Your task to perform on an android device: Open the web browser Image 0: 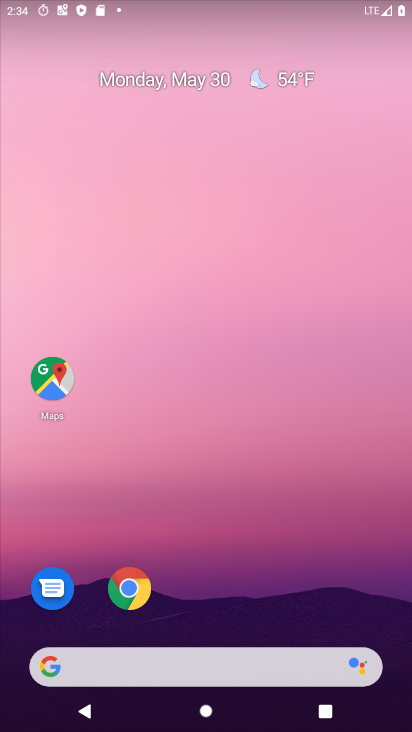
Step 0: drag from (234, 598) to (226, 91)
Your task to perform on an android device: Open the web browser Image 1: 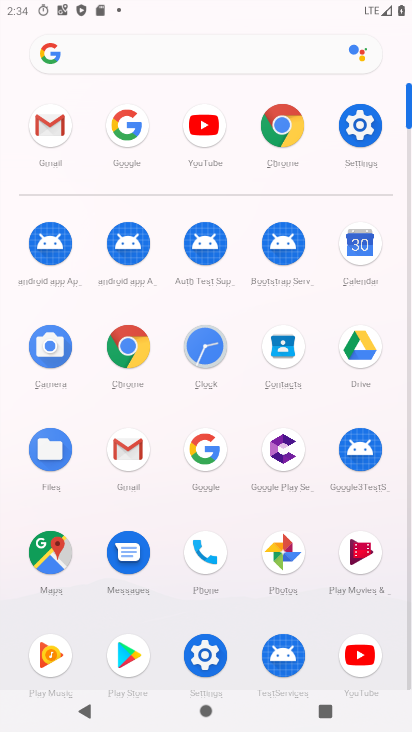
Step 1: click (127, 118)
Your task to perform on an android device: Open the web browser Image 2: 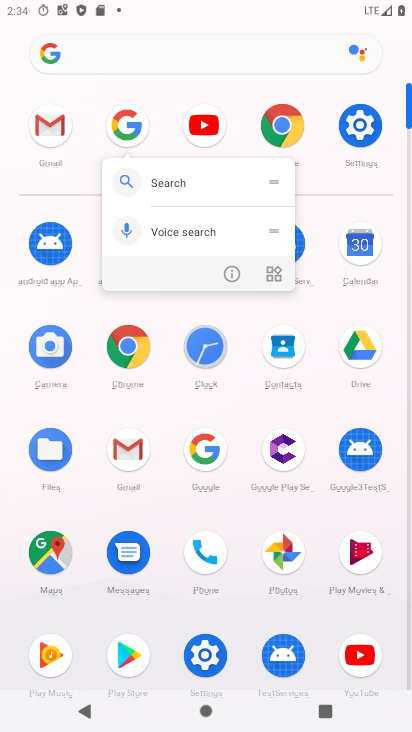
Step 2: click (124, 117)
Your task to perform on an android device: Open the web browser Image 3: 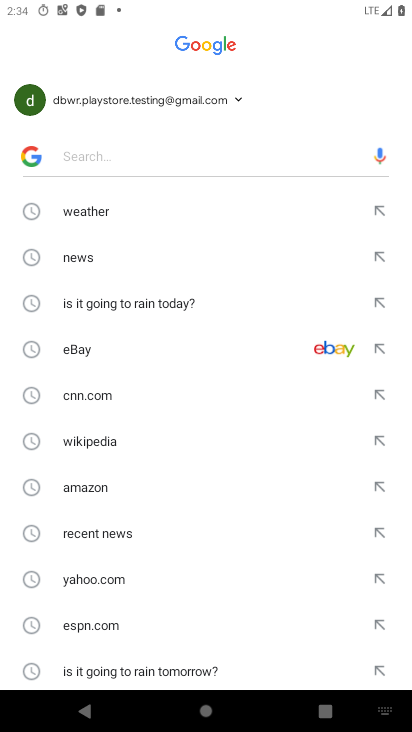
Step 3: task complete